Your task to perform on an android device: What's on my calendar tomorrow? Image 0: 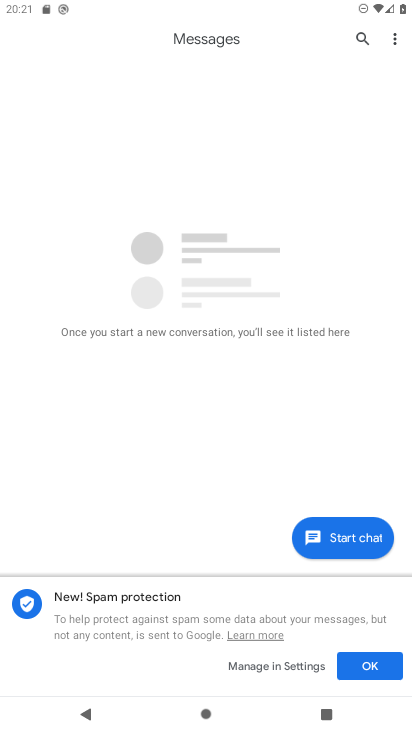
Step 0: press home button
Your task to perform on an android device: What's on my calendar tomorrow? Image 1: 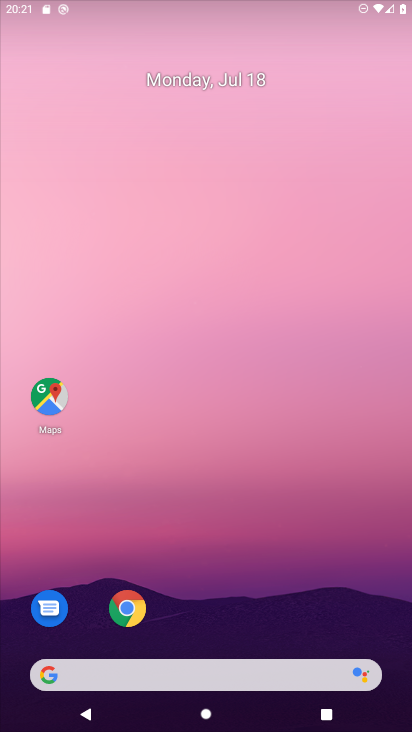
Step 1: drag from (206, 645) to (227, 78)
Your task to perform on an android device: What's on my calendar tomorrow? Image 2: 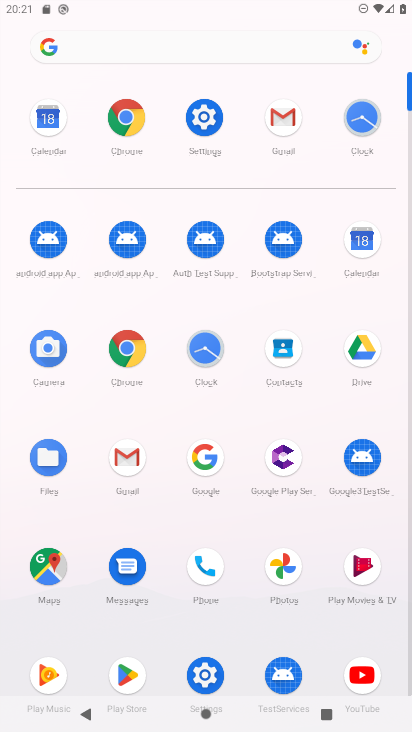
Step 2: click (364, 235)
Your task to perform on an android device: What's on my calendar tomorrow? Image 3: 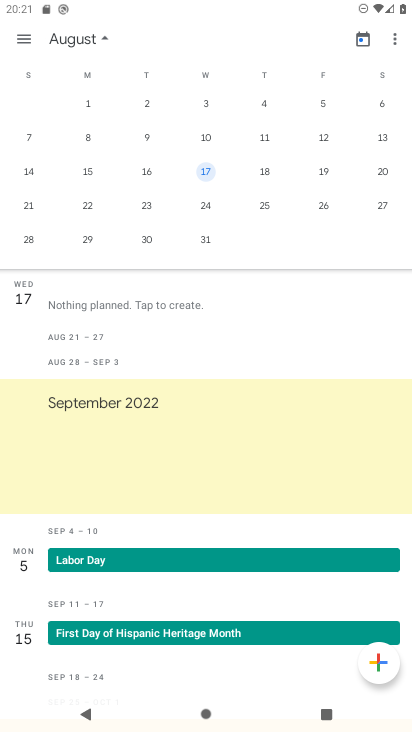
Step 3: drag from (48, 220) to (398, 226)
Your task to perform on an android device: What's on my calendar tomorrow? Image 4: 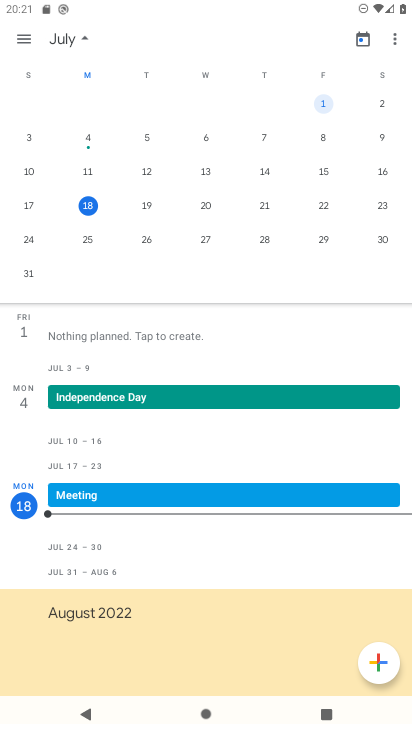
Step 4: click (145, 204)
Your task to perform on an android device: What's on my calendar tomorrow? Image 5: 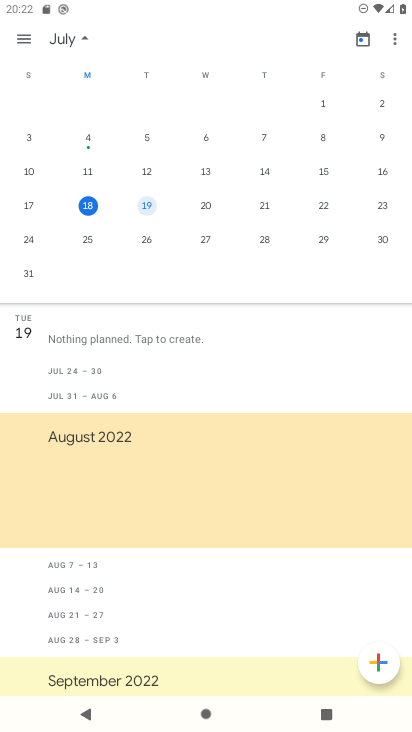
Step 5: task complete